Your task to perform on an android device: Do I have any events tomorrow? Image 0: 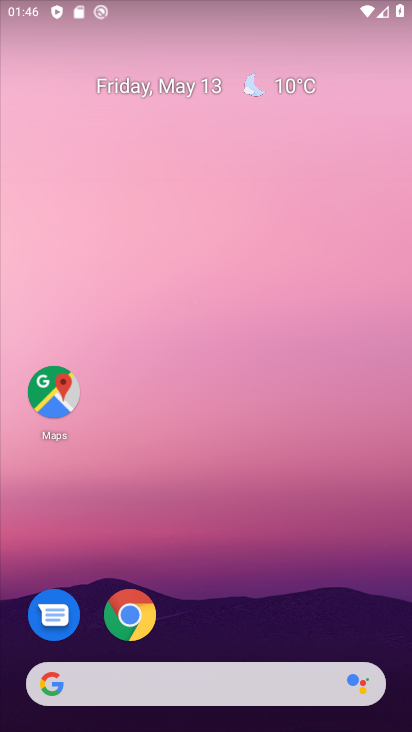
Step 0: drag from (181, 615) to (65, 102)
Your task to perform on an android device: Do I have any events tomorrow? Image 1: 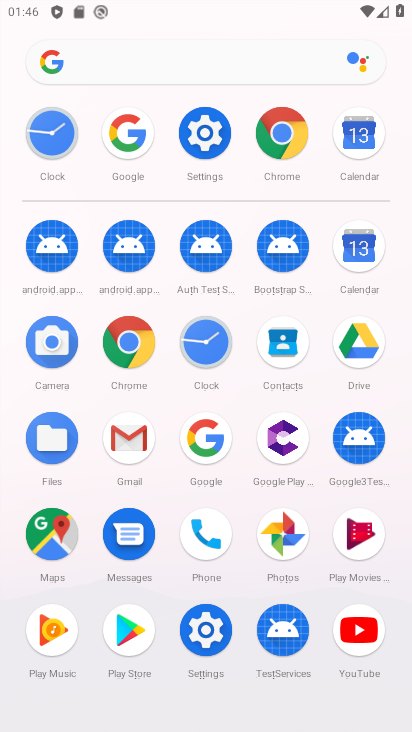
Step 1: click (361, 243)
Your task to perform on an android device: Do I have any events tomorrow? Image 2: 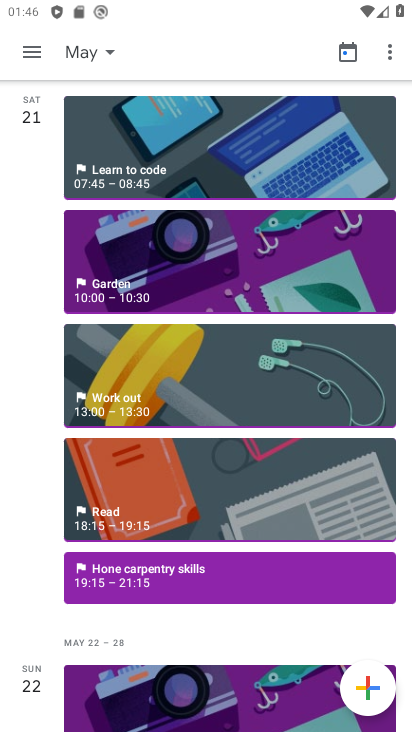
Step 2: click (85, 52)
Your task to perform on an android device: Do I have any events tomorrow? Image 3: 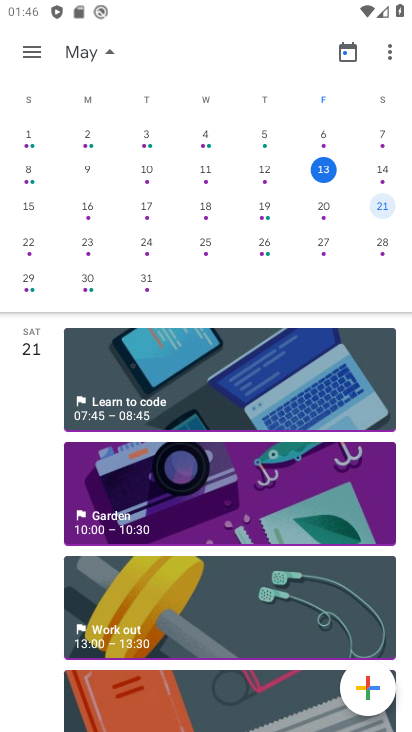
Step 3: click (383, 169)
Your task to perform on an android device: Do I have any events tomorrow? Image 4: 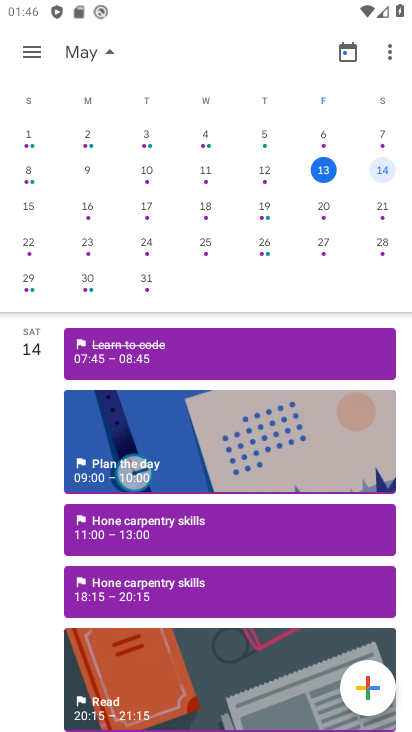
Step 4: click (90, 42)
Your task to perform on an android device: Do I have any events tomorrow? Image 5: 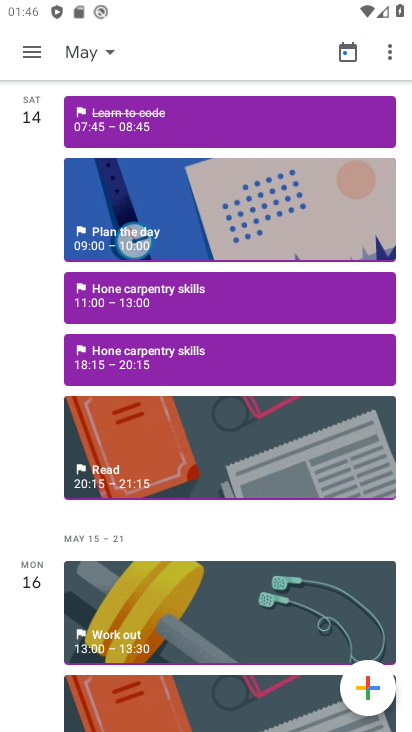
Step 5: task complete